Your task to perform on an android device: Open privacy settings Image 0: 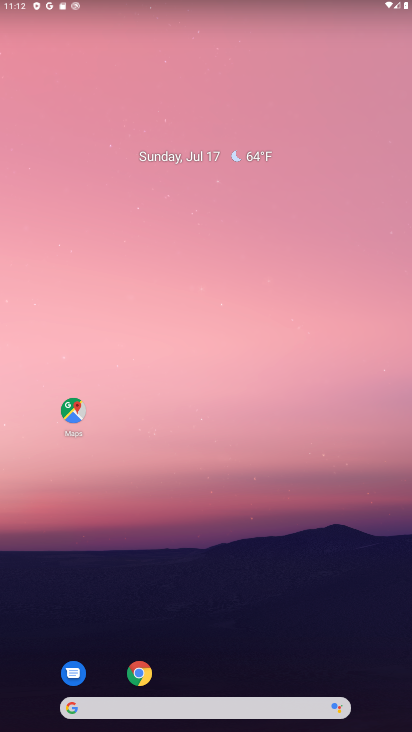
Step 0: drag from (238, 674) to (246, 159)
Your task to perform on an android device: Open privacy settings Image 1: 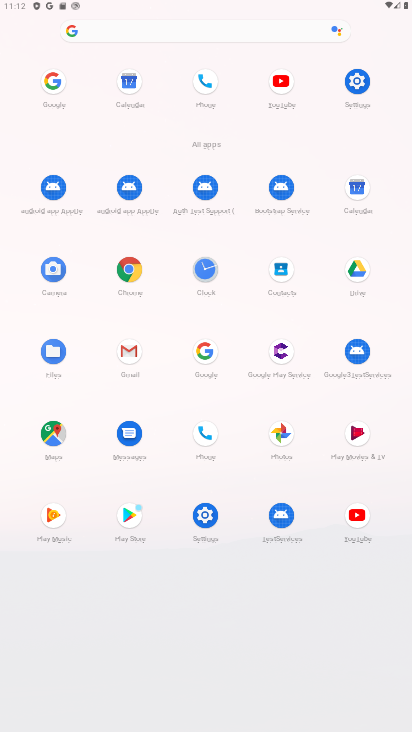
Step 1: click (356, 80)
Your task to perform on an android device: Open privacy settings Image 2: 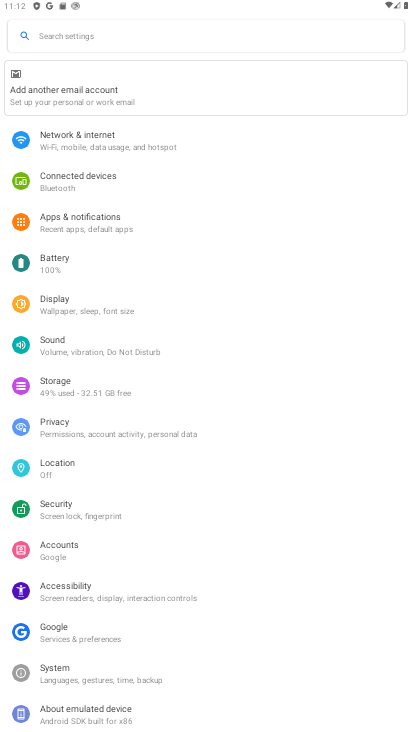
Step 2: click (101, 425)
Your task to perform on an android device: Open privacy settings Image 3: 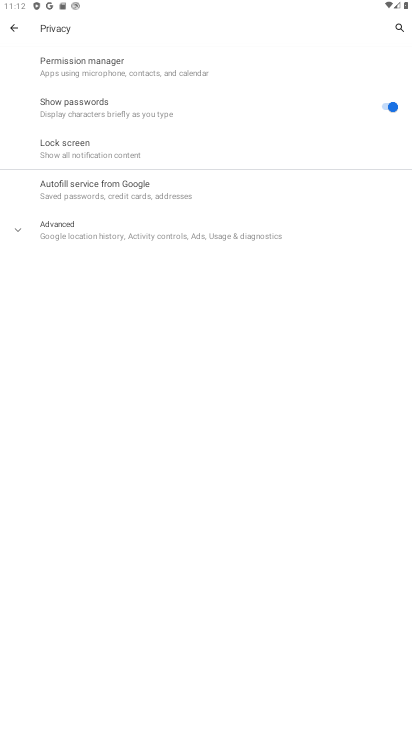
Step 3: task complete